Your task to perform on an android device: move a message to another label in the gmail app Image 0: 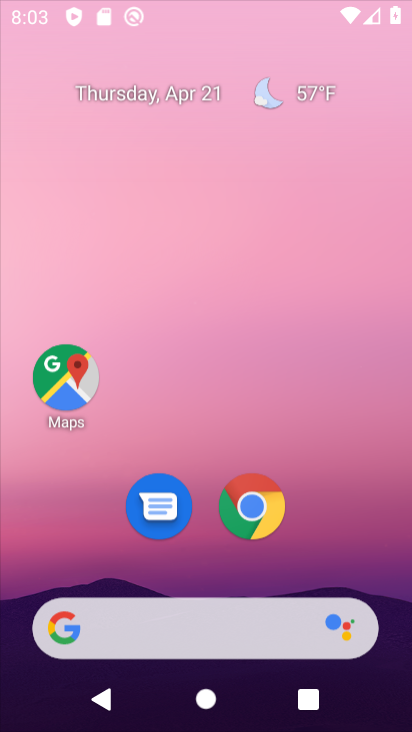
Step 0: drag from (332, 544) to (305, 20)
Your task to perform on an android device: move a message to another label in the gmail app Image 1: 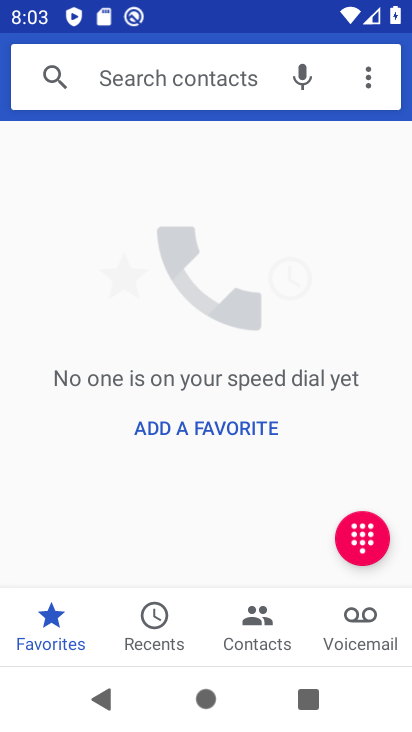
Step 1: press home button
Your task to perform on an android device: move a message to another label in the gmail app Image 2: 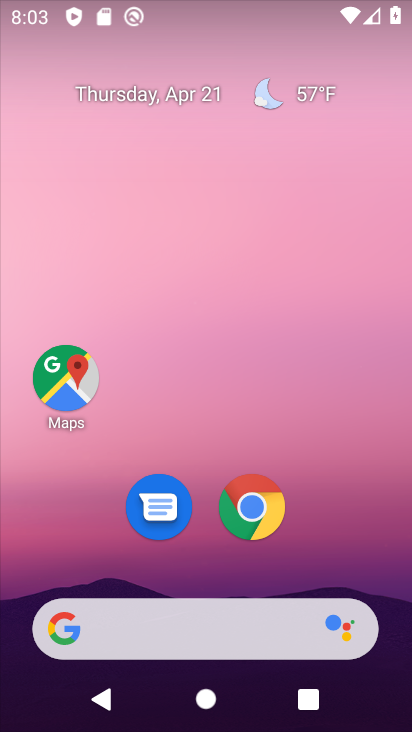
Step 2: drag from (363, 490) to (314, 15)
Your task to perform on an android device: move a message to another label in the gmail app Image 3: 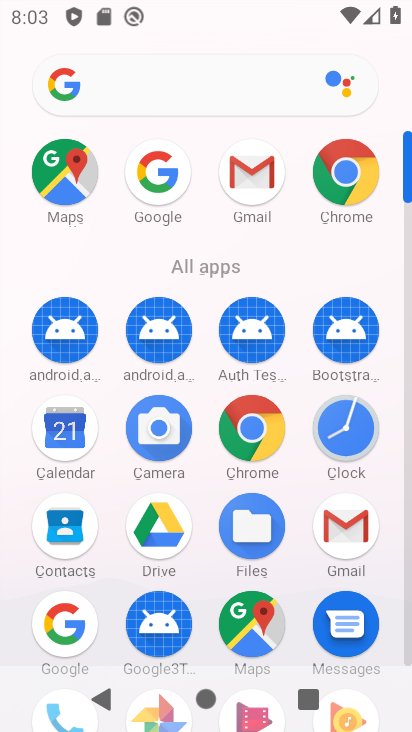
Step 3: click (242, 173)
Your task to perform on an android device: move a message to another label in the gmail app Image 4: 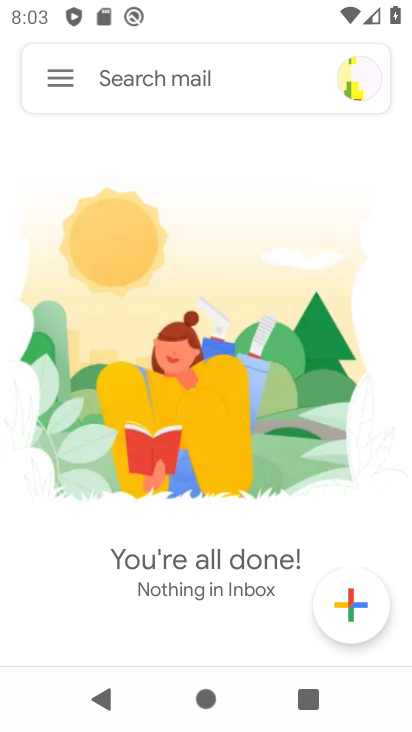
Step 4: click (51, 76)
Your task to perform on an android device: move a message to another label in the gmail app Image 5: 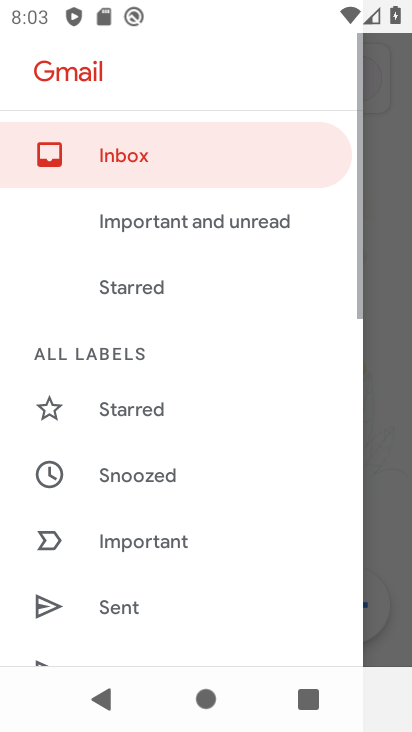
Step 5: task complete